Your task to perform on an android device: turn on translation in the chrome app Image 0: 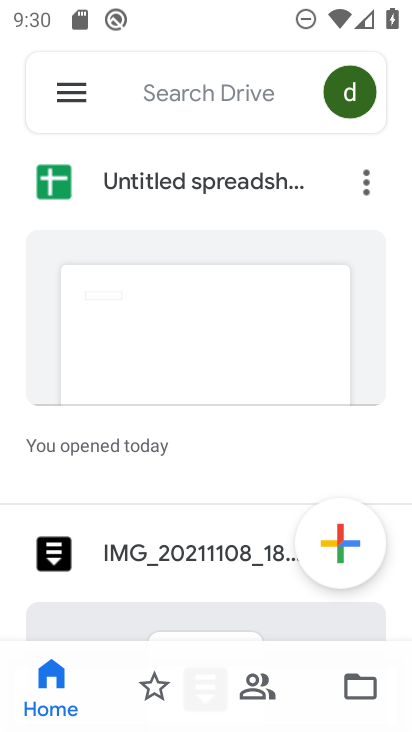
Step 0: press home button
Your task to perform on an android device: turn on translation in the chrome app Image 1: 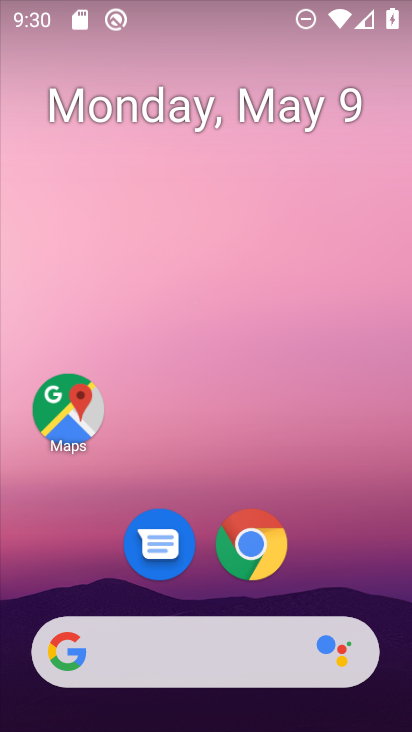
Step 1: click (256, 535)
Your task to perform on an android device: turn on translation in the chrome app Image 2: 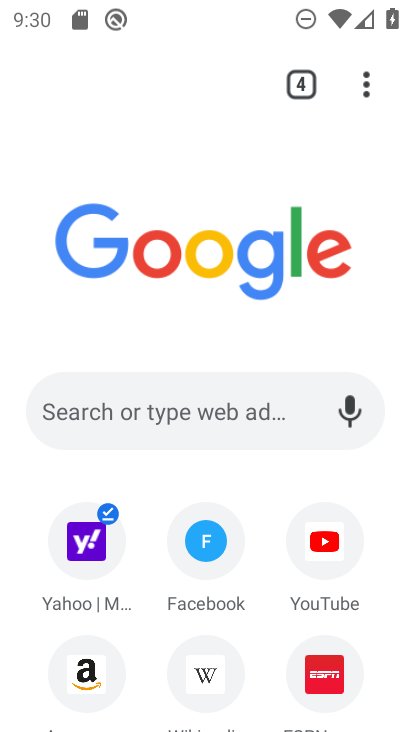
Step 2: click (368, 80)
Your task to perform on an android device: turn on translation in the chrome app Image 3: 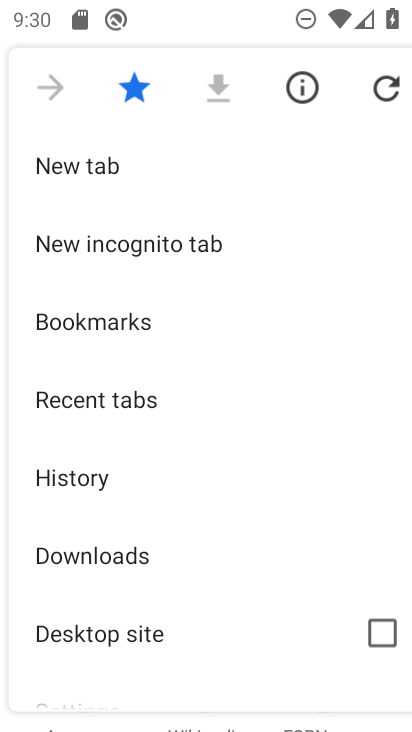
Step 3: drag from (248, 504) to (203, 308)
Your task to perform on an android device: turn on translation in the chrome app Image 4: 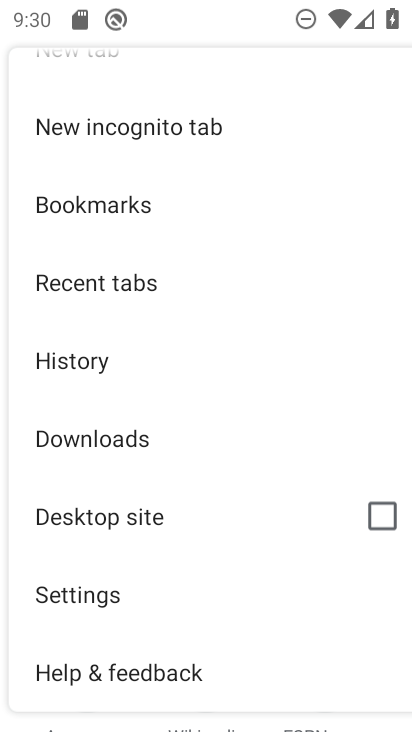
Step 4: click (91, 600)
Your task to perform on an android device: turn on translation in the chrome app Image 5: 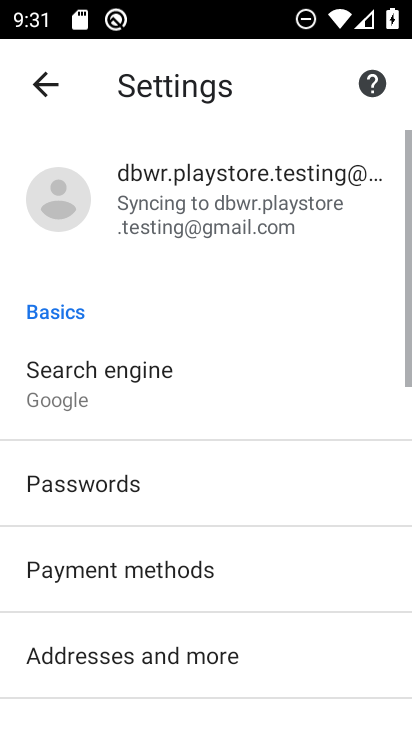
Step 5: drag from (224, 538) to (180, 168)
Your task to perform on an android device: turn on translation in the chrome app Image 6: 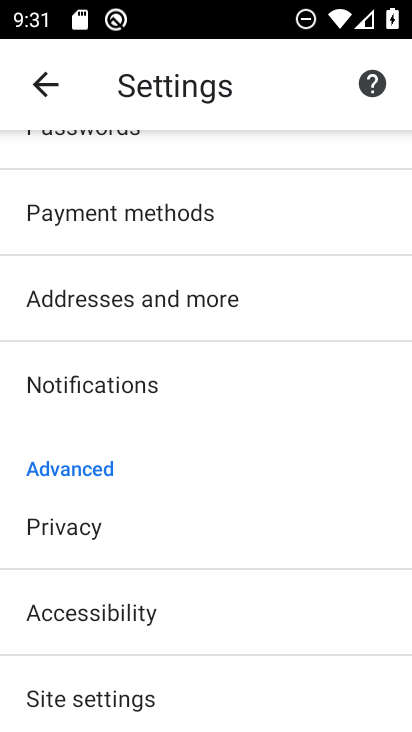
Step 6: drag from (194, 581) to (183, 372)
Your task to perform on an android device: turn on translation in the chrome app Image 7: 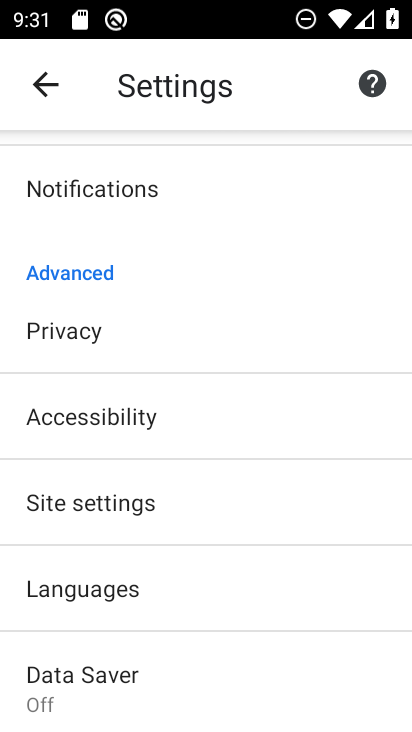
Step 7: click (92, 599)
Your task to perform on an android device: turn on translation in the chrome app Image 8: 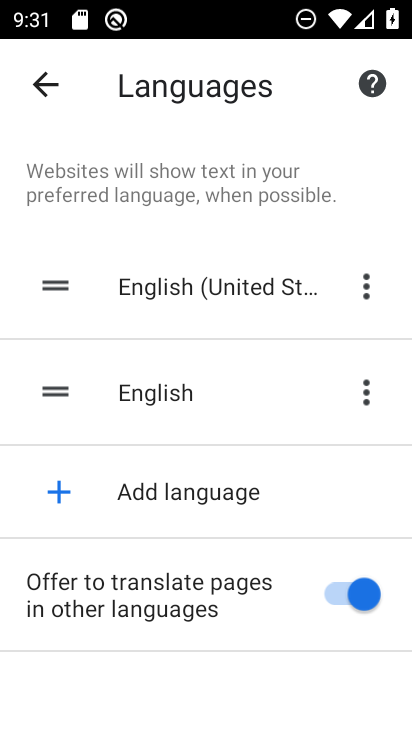
Step 8: task complete